Your task to perform on an android device: search for starred emails in the gmail app Image 0: 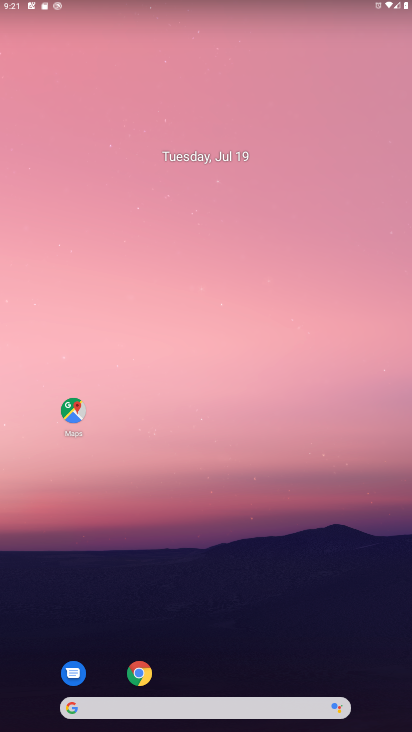
Step 0: drag from (344, 665) to (284, 88)
Your task to perform on an android device: search for starred emails in the gmail app Image 1: 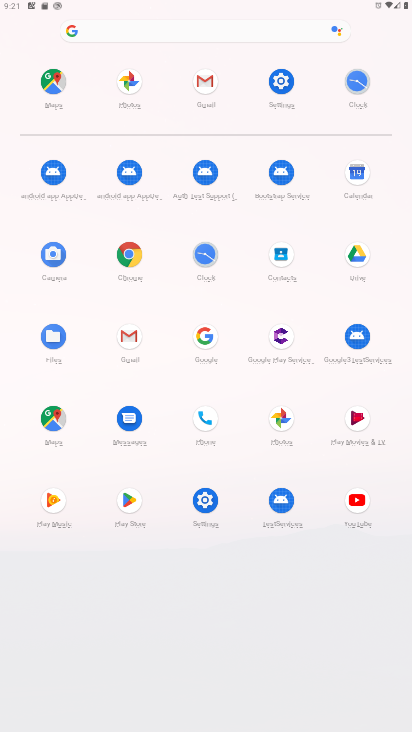
Step 1: click (129, 336)
Your task to perform on an android device: search for starred emails in the gmail app Image 2: 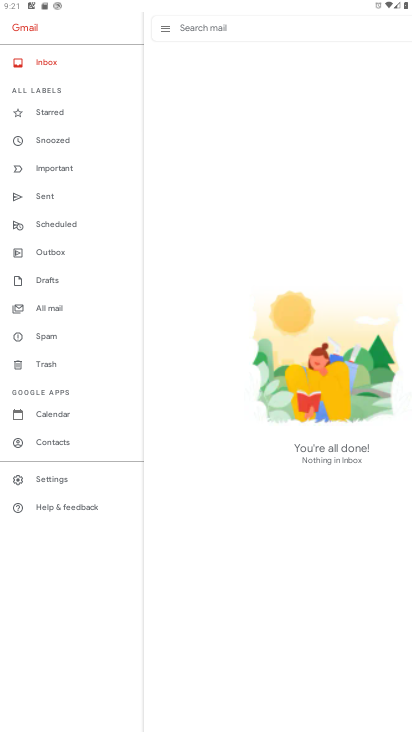
Step 2: click (42, 109)
Your task to perform on an android device: search for starred emails in the gmail app Image 3: 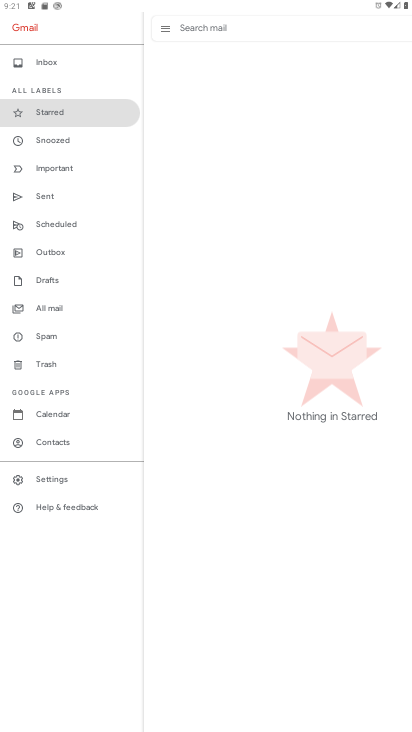
Step 3: task complete